Your task to perform on an android device: Go to ESPN.com Image 0: 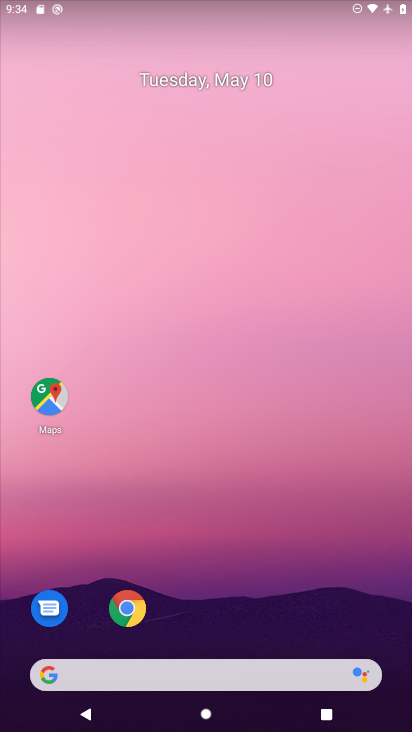
Step 0: drag from (286, 300) to (286, 265)
Your task to perform on an android device: Go to ESPN.com Image 1: 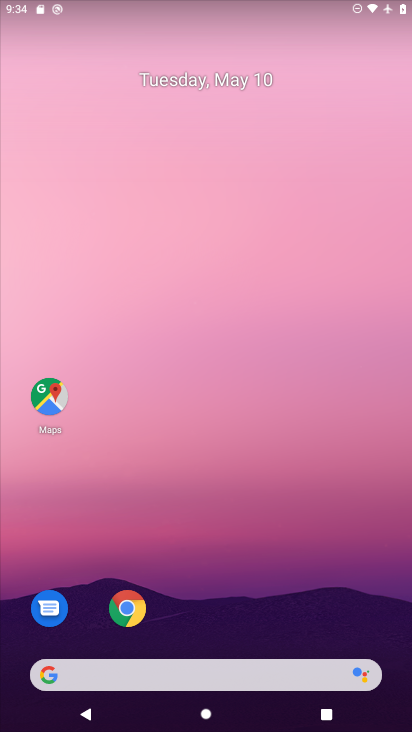
Step 1: drag from (227, 555) to (246, 260)
Your task to perform on an android device: Go to ESPN.com Image 2: 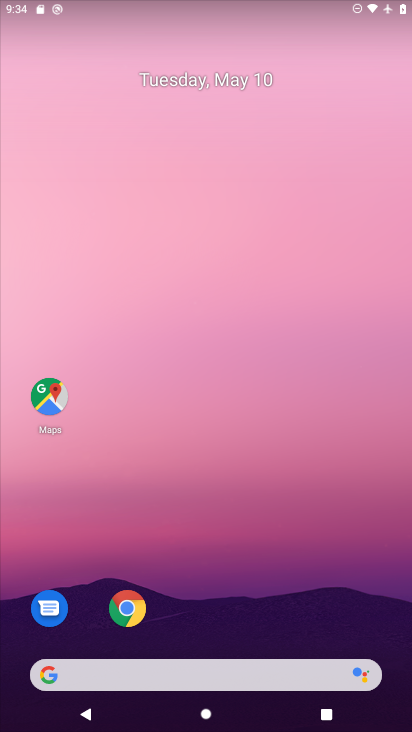
Step 2: click (209, 606)
Your task to perform on an android device: Go to ESPN.com Image 3: 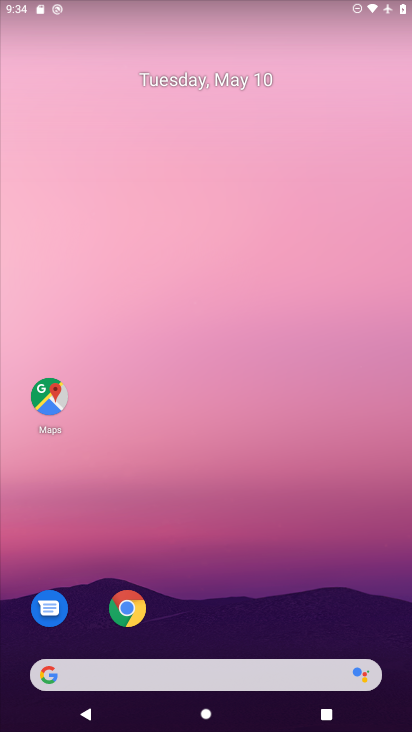
Step 3: drag from (235, 638) to (247, 279)
Your task to perform on an android device: Go to ESPN.com Image 4: 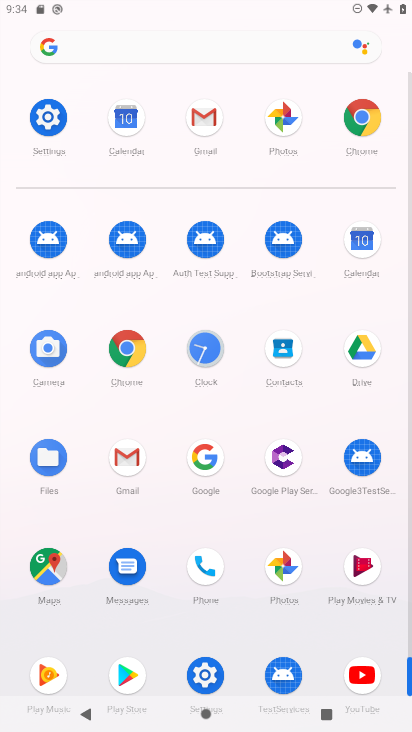
Step 4: click (129, 348)
Your task to perform on an android device: Go to ESPN.com Image 5: 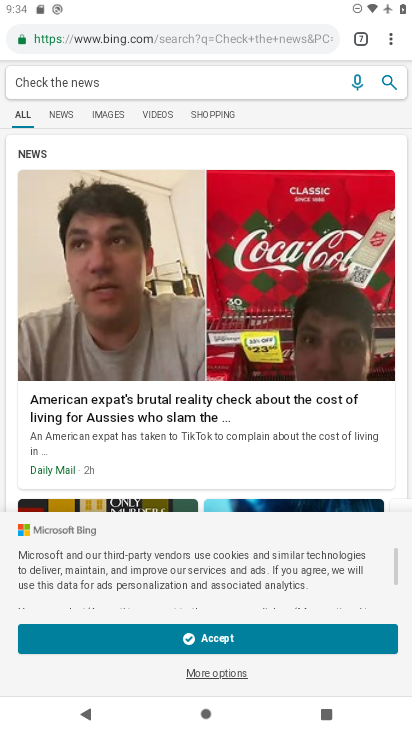
Step 5: click (385, 38)
Your task to perform on an android device: Go to ESPN.com Image 6: 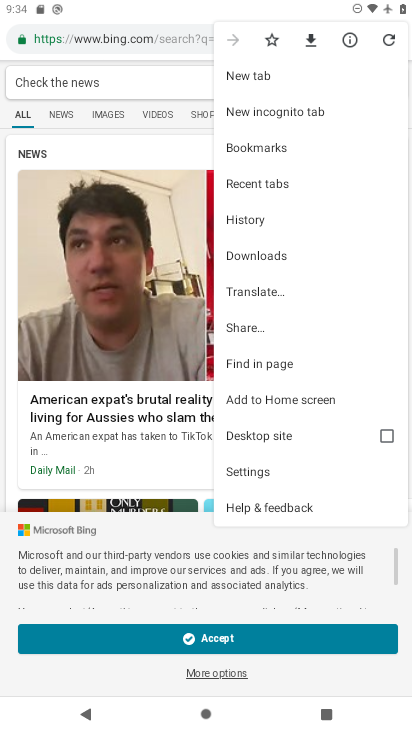
Step 6: click (265, 72)
Your task to perform on an android device: Go to ESPN.com Image 7: 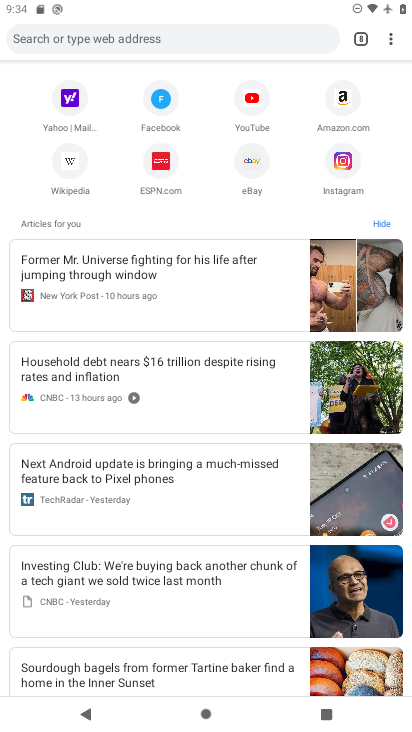
Step 7: click (152, 161)
Your task to perform on an android device: Go to ESPN.com Image 8: 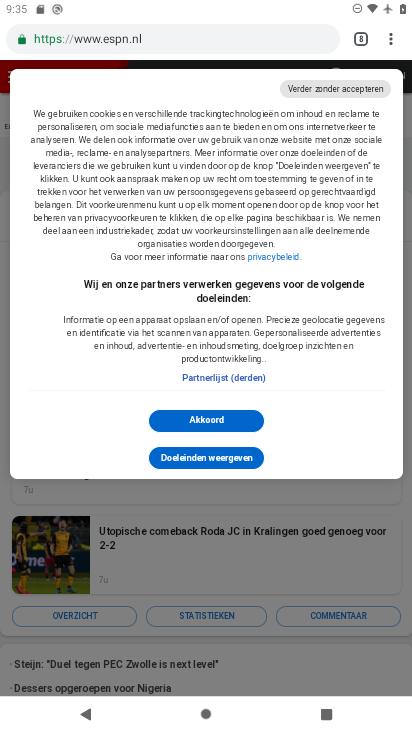
Step 8: task complete